Your task to perform on an android device: change the upload size in google photos Image 0: 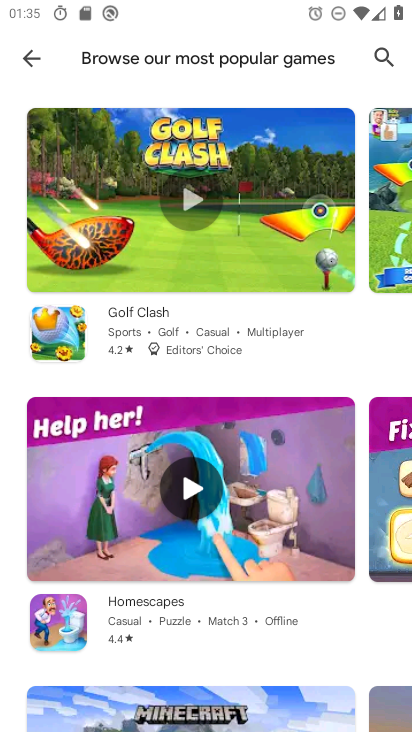
Step 0: press home button
Your task to perform on an android device: change the upload size in google photos Image 1: 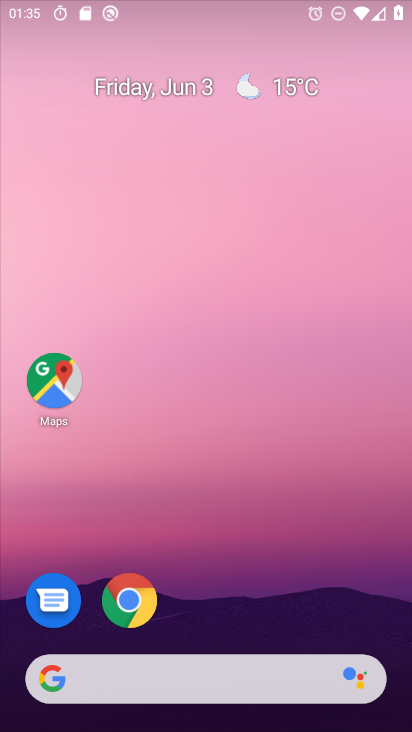
Step 1: drag from (219, 631) to (174, 51)
Your task to perform on an android device: change the upload size in google photos Image 2: 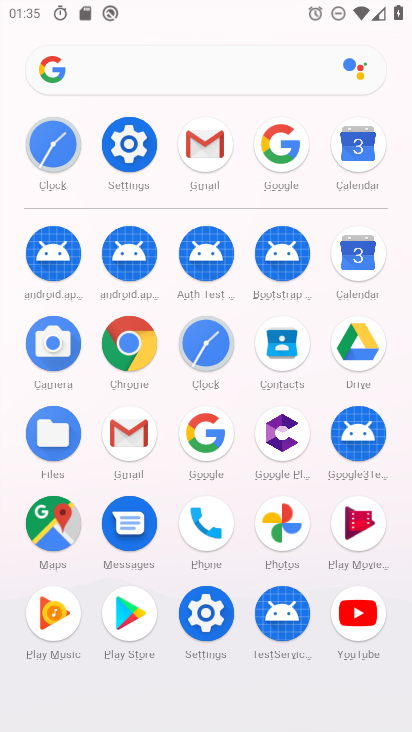
Step 2: click (290, 525)
Your task to perform on an android device: change the upload size in google photos Image 3: 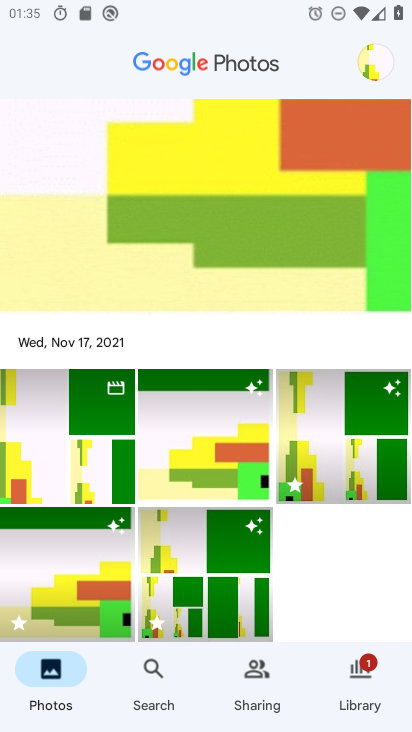
Step 3: click (373, 65)
Your task to perform on an android device: change the upload size in google photos Image 4: 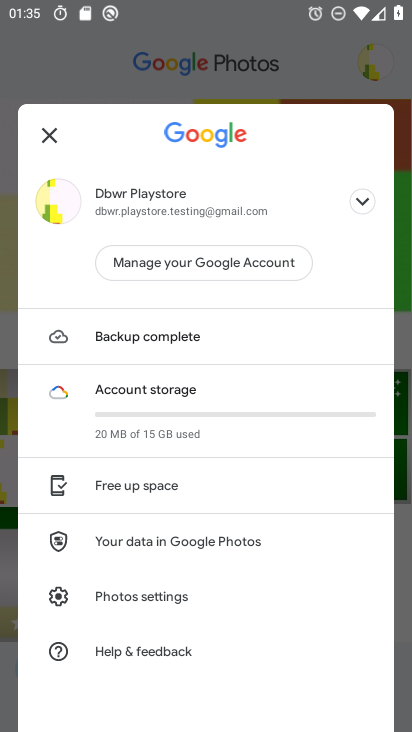
Step 4: click (143, 591)
Your task to perform on an android device: change the upload size in google photos Image 5: 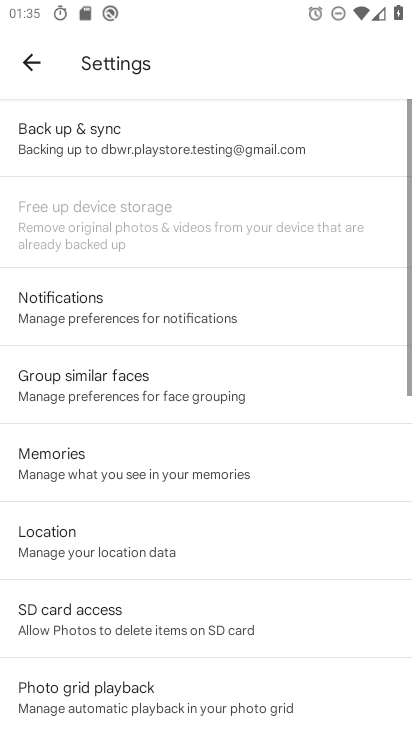
Step 5: click (144, 145)
Your task to perform on an android device: change the upload size in google photos Image 6: 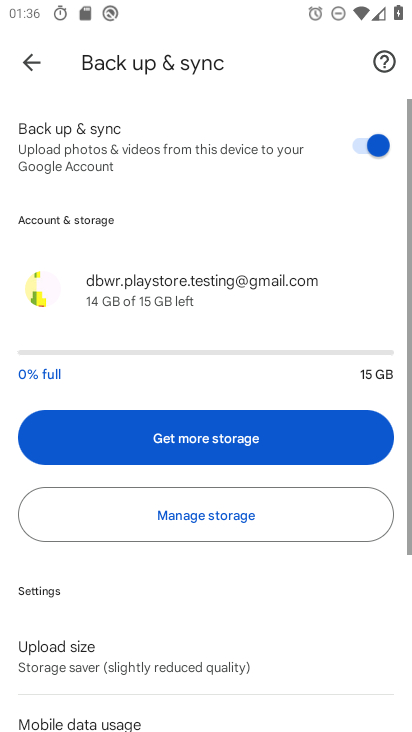
Step 6: click (111, 667)
Your task to perform on an android device: change the upload size in google photos Image 7: 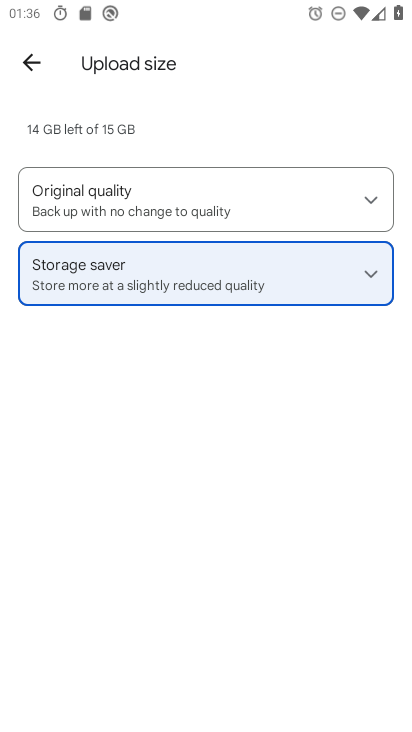
Step 7: click (141, 195)
Your task to perform on an android device: change the upload size in google photos Image 8: 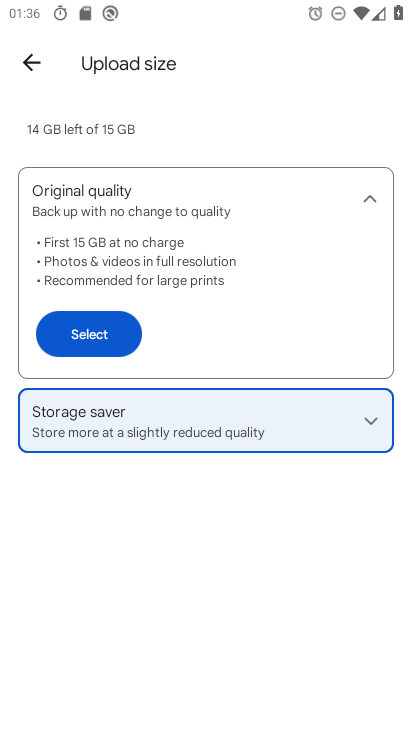
Step 8: click (88, 326)
Your task to perform on an android device: change the upload size in google photos Image 9: 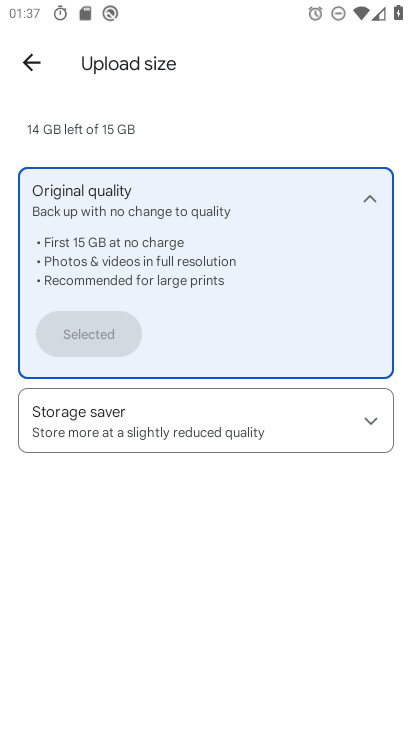
Step 9: task complete